Your task to perform on an android device: toggle sleep mode Image 0: 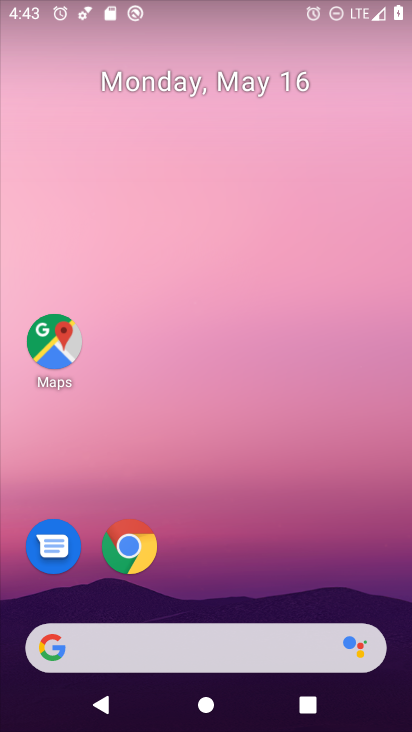
Step 0: drag from (363, 586) to (357, 205)
Your task to perform on an android device: toggle sleep mode Image 1: 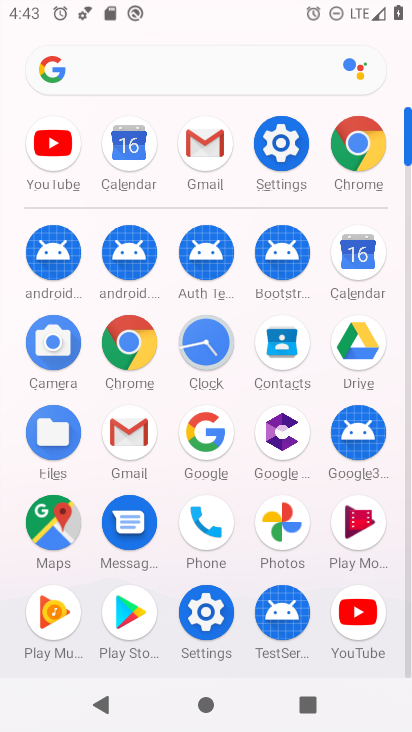
Step 1: click (213, 634)
Your task to perform on an android device: toggle sleep mode Image 2: 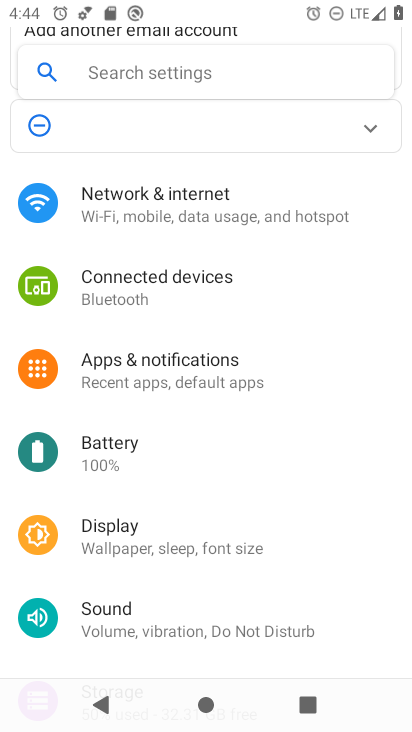
Step 2: drag from (354, 625) to (357, 492)
Your task to perform on an android device: toggle sleep mode Image 3: 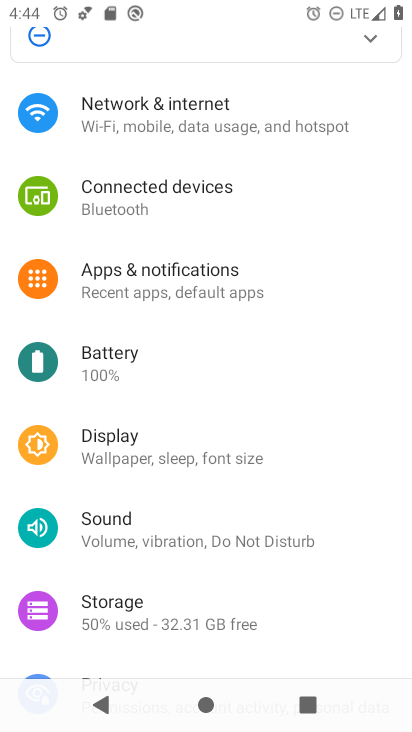
Step 3: drag from (331, 622) to (351, 478)
Your task to perform on an android device: toggle sleep mode Image 4: 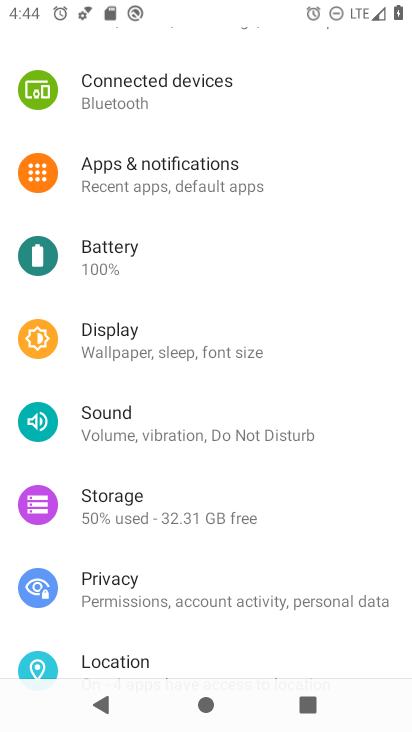
Step 4: drag from (326, 630) to (332, 454)
Your task to perform on an android device: toggle sleep mode Image 5: 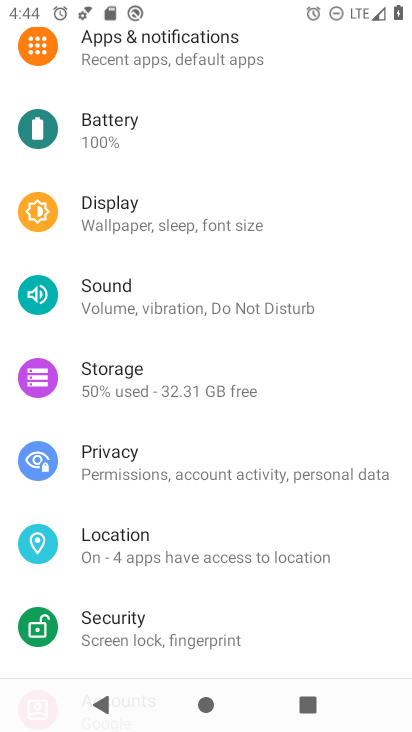
Step 5: drag from (327, 623) to (339, 414)
Your task to perform on an android device: toggle sleep mode Image 6: 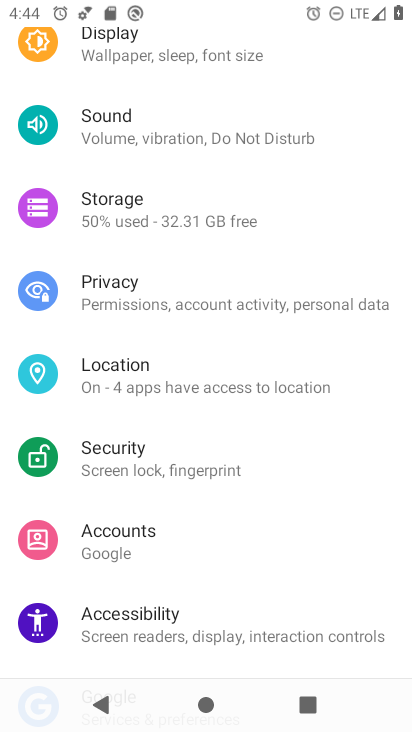
Step 6: drag from (314, 659) to (328, 433)
Your task to perform on an android device: toggle sleep mode Image 7: 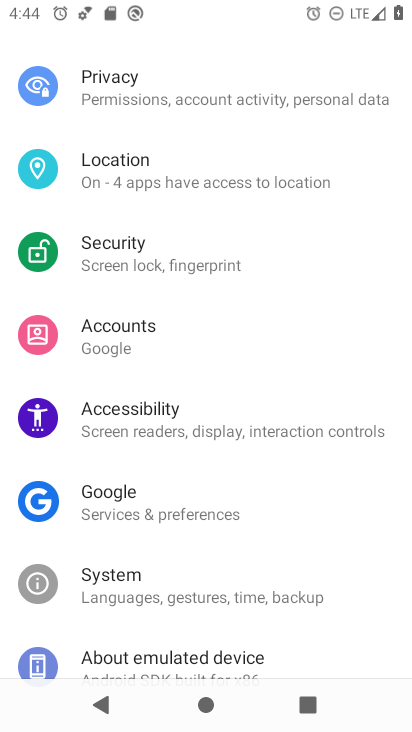
Step 7: drag from (318, 640) to (326, 464)
Your task to perform on an android device: toggle sleep mode Image 8: 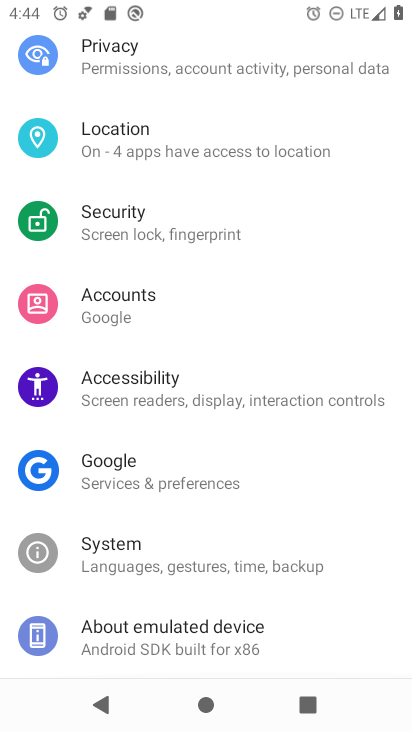
Step 8: drag from (326, 430) to (322, 520)
Your task to perform on an android device: toggle sleep mode Image 9: 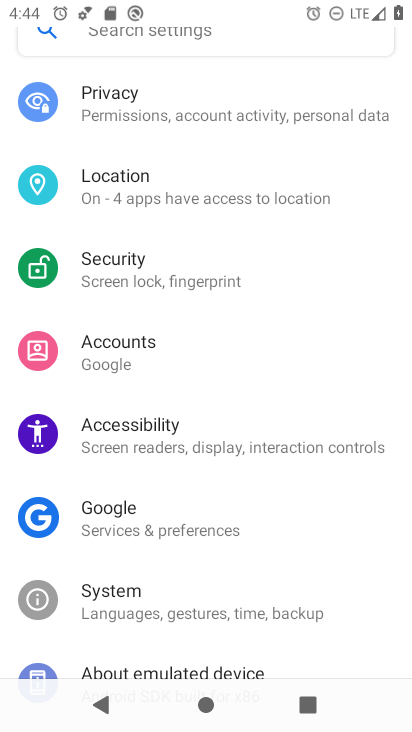
Step 9: drag from (320, 371) to (303, 524)
Your task to perform on an android device: toggle sleep mode Image 10: 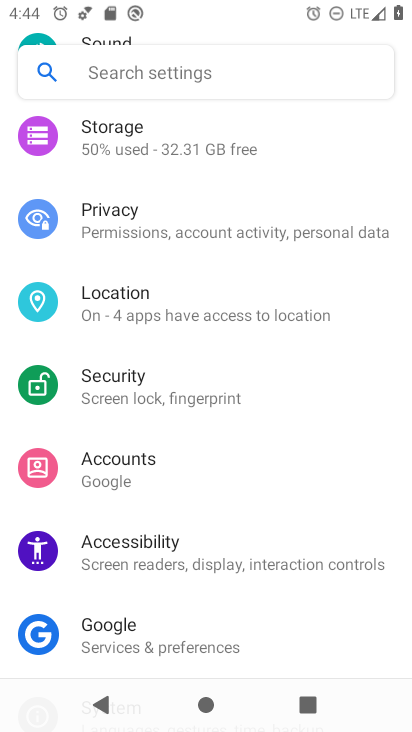
Step 10: drag from (322, 358) to (318, 514)
Your task to perform on an android device: toggle sleep mode Image 11: 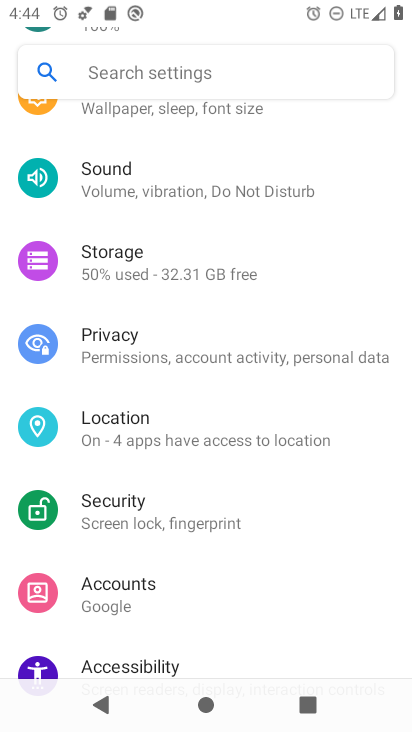
Step 11: drag from (341, 307) to (332, 495)
Your task to perform on an android device: toggle sleep mode Image 12: 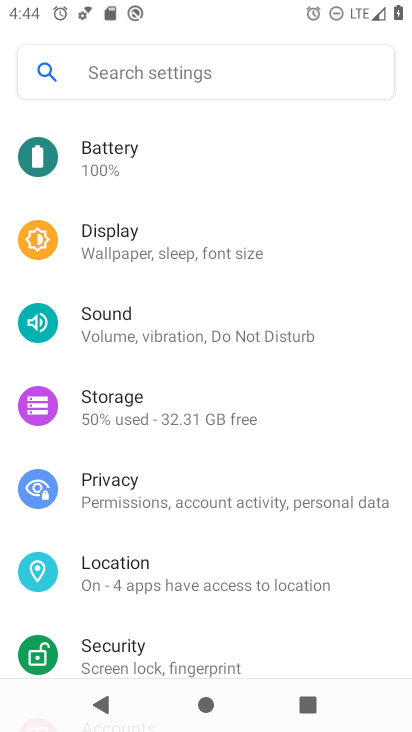
Step 12: drag from (341, 299) to (335, 459)
Your task to perform on an android device: toggle sleep mode Image 13: 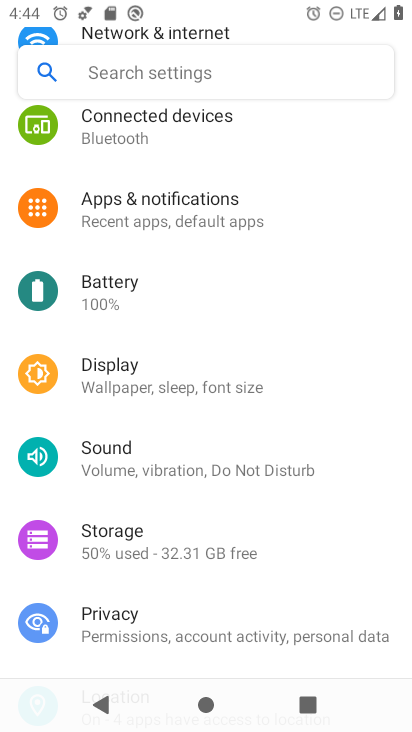
Step 13: click (238, 399)
Your task to perform on an android device: toggle sleep mode Image 14: 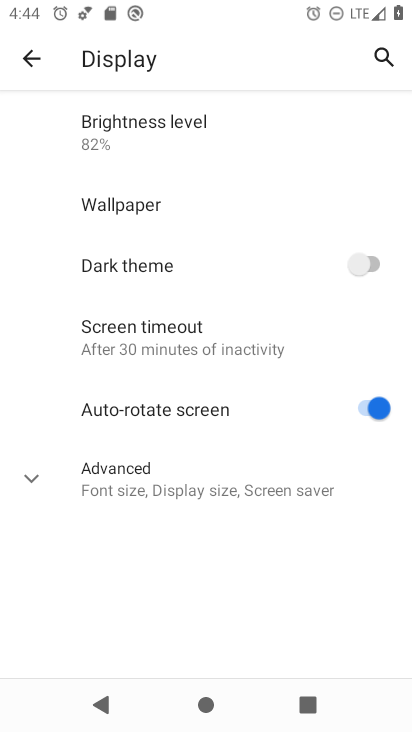
Step 14: click (222, 474)
Your task to perform on an android device: toggle sleep mode Image 15: 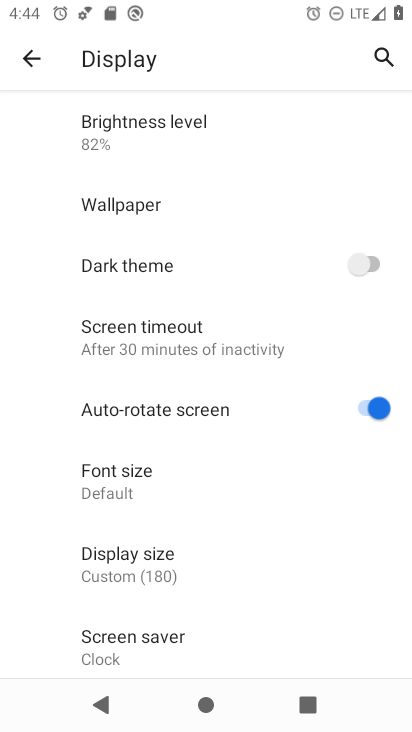
Step 15: task complete